Your task to perform on an android device: turn off notifications in google photos Image 0: 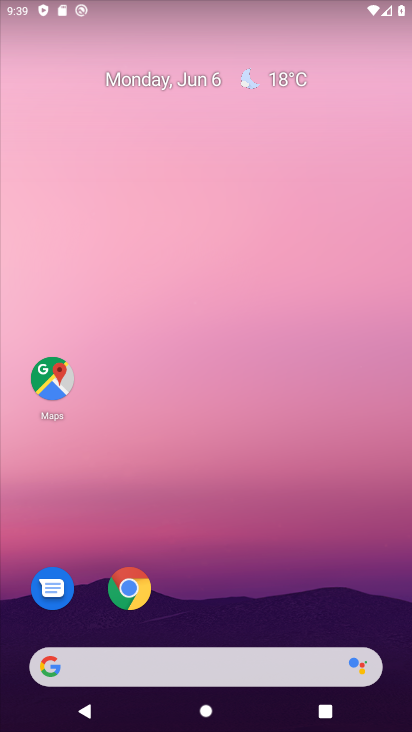
Step 0: drag from (209, 625) to (259, 44)
Your task to perform on an android device: turn off notifications in google photos Image 1: 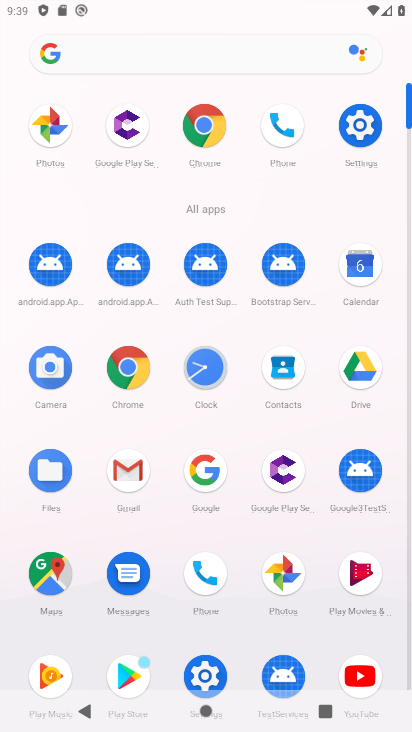
Step 1: click (282, 568)
Your task to perform on an android device: turn off notifications in google photos Image 2: 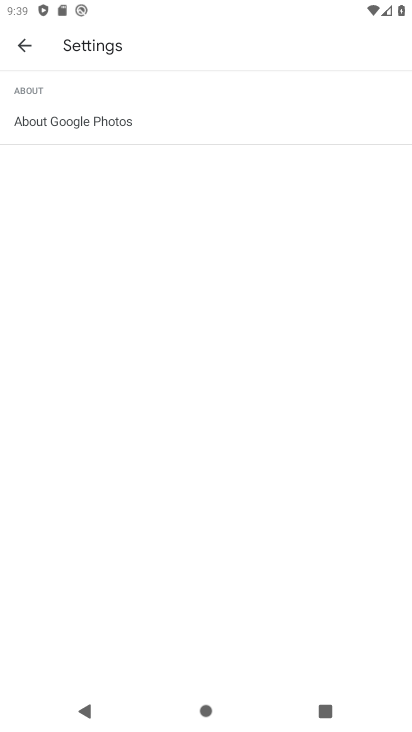
Step 2: click (26, 49)
Your task to perform on an android device: turn off notifications in google photos Image 3: 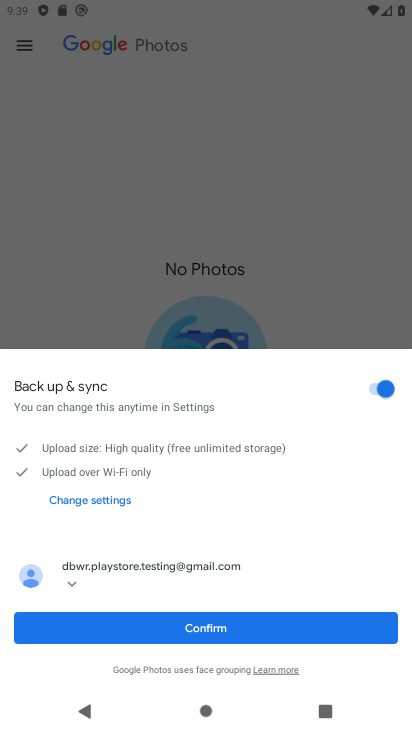
Step 3: click (203, 622)
Your task to perform on an android device: turn off notifications in google photos Image 4: 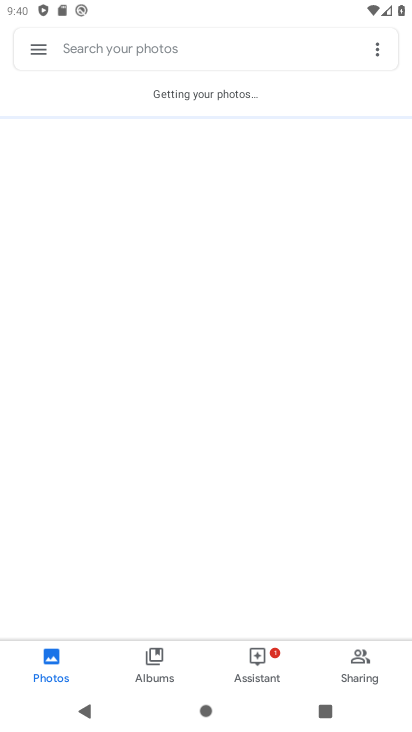
Step 4: click (30, 45)
Your task to perform on an android device: turn off notifications in google photos Image 5: 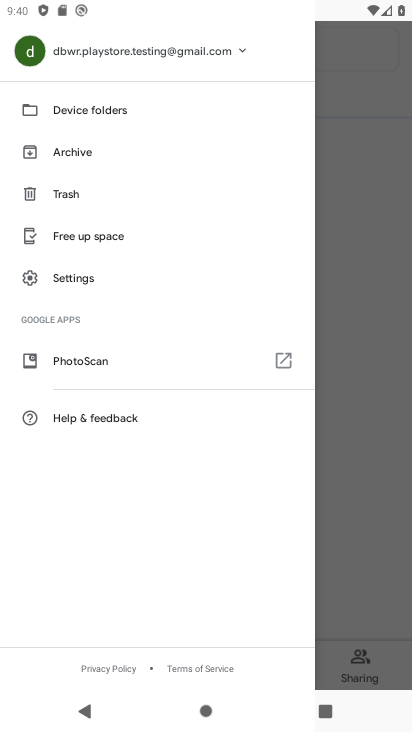
Step 5: click (99, 276)
Your task to perform on an android device: turn off notifications in google photos Image 6: 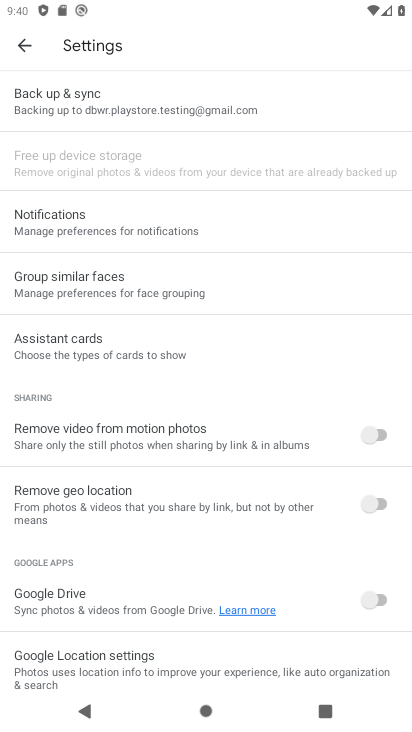
Step 6: click (110, 209)
Your task to perform on an android device: turn off notifications in google photos Image 7: 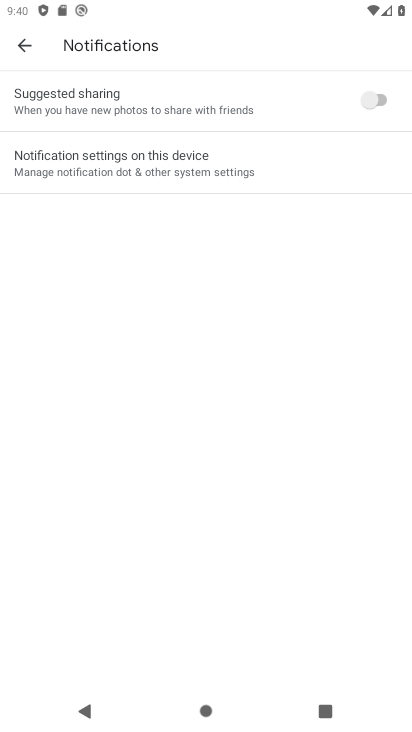
Step 7: click (151, 173)
Your task to perform on an android device: turn off notifications in google photos Image 8: 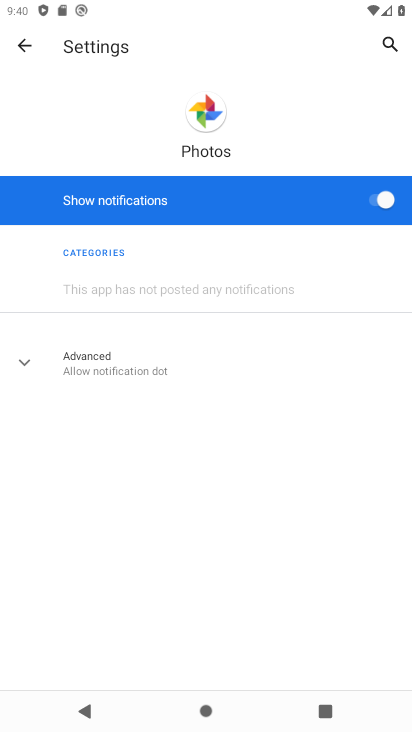
Step 8: click (375, 198)
Your task to perform on an android device: turn off notifications in google photos Image 9: 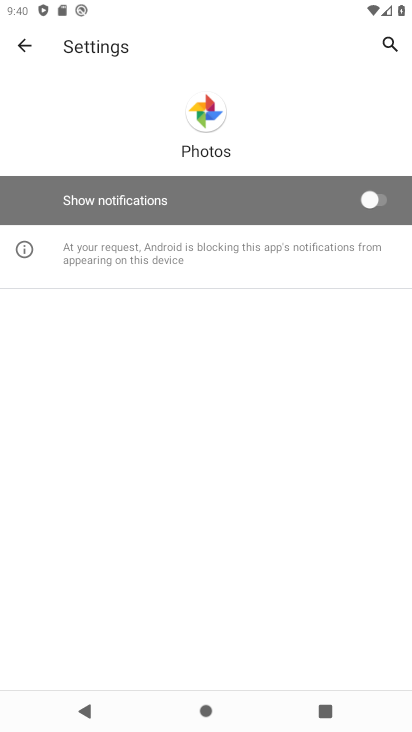
Step 9: task complete